Your task to perform on an android device: Open Chrome and go to settings Image 0: 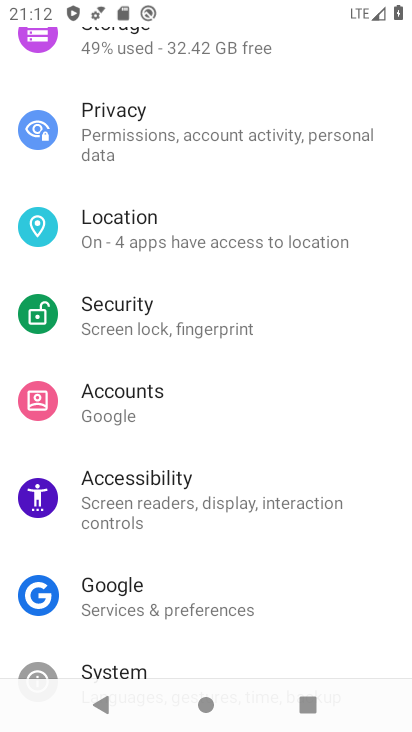
Step 0: press home button
Your task to perform on an android device: Open Chrome and go to settings Image 1: 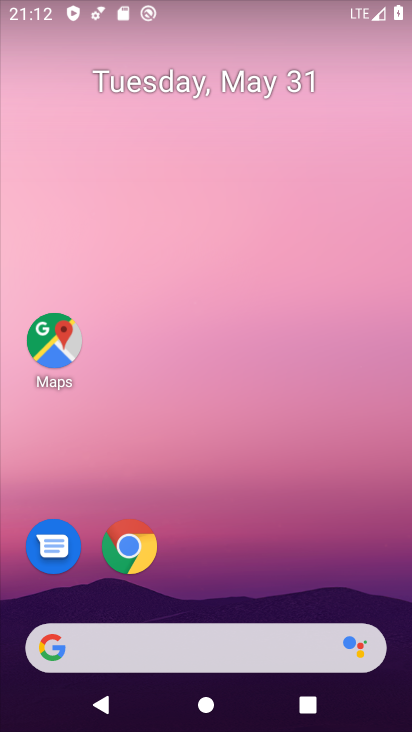
Step 1: click (122, 544)
Your task to perform on an android device: Open Chrome and go to settings Image 2: 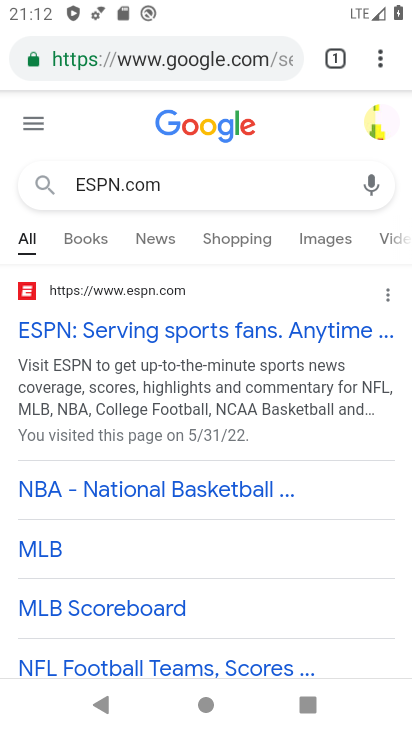
Step 2: click (378, 57)
Your task to perform on an android device: Open Chrome and go to settings Image 3: 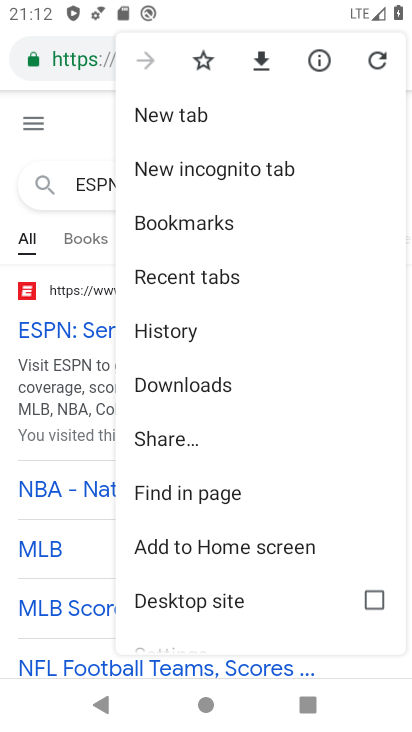
Step 3: drag from (302, 607) to (305, 262)
Your task to perform on an android device: Open Chrome and go to settings Image 4: 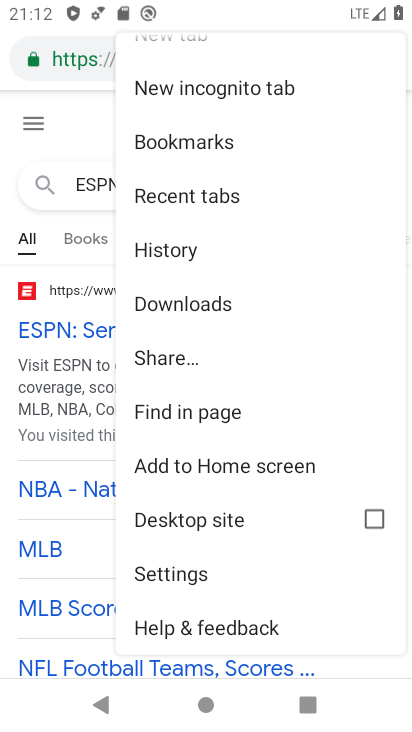
Step 4: click (170, 576)
Your task to perform on an android device: Open Chrome and go to settings Image 5: 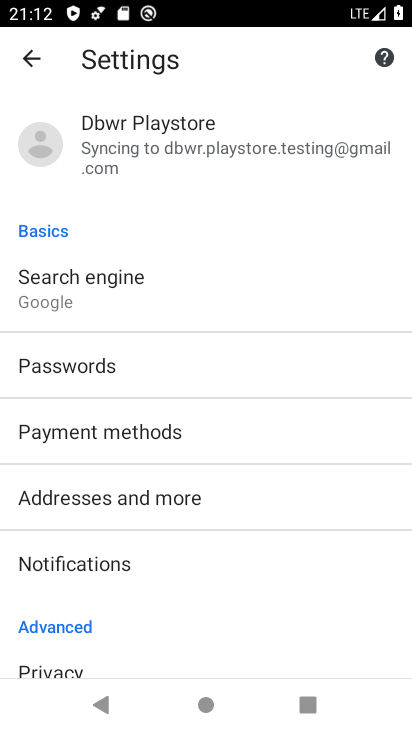
Step 5: task complete